Your task to perform on an android device: set the stopwatch Image 0: 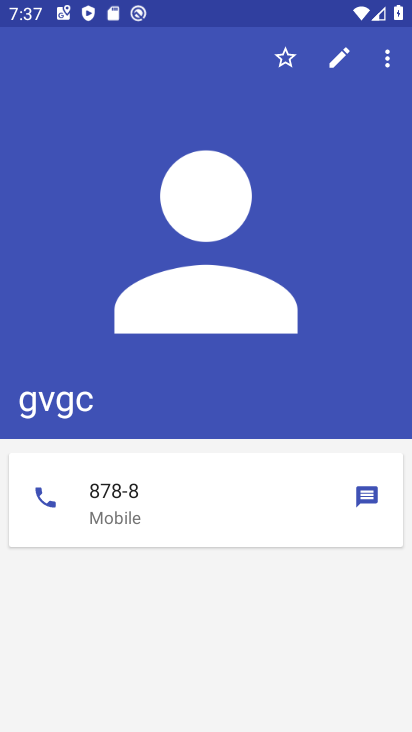
Step 0: press home button
Your task to perform on an android device: set the stopwatch Image 1: 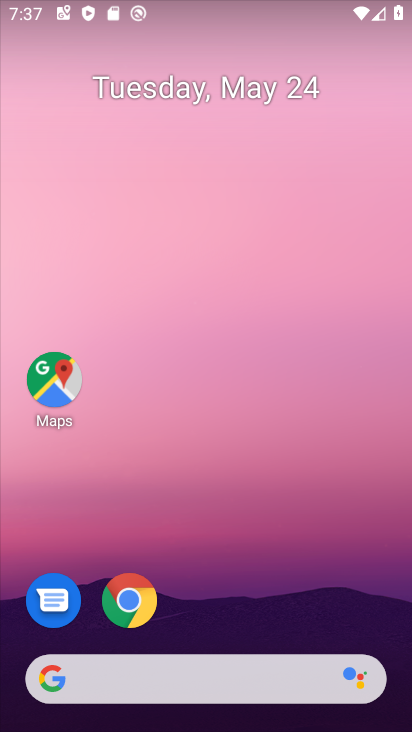
Step 1: drag from (268, 607) to (338, 29)
Your task to perform on an android device: set the stopwatch Image 2: 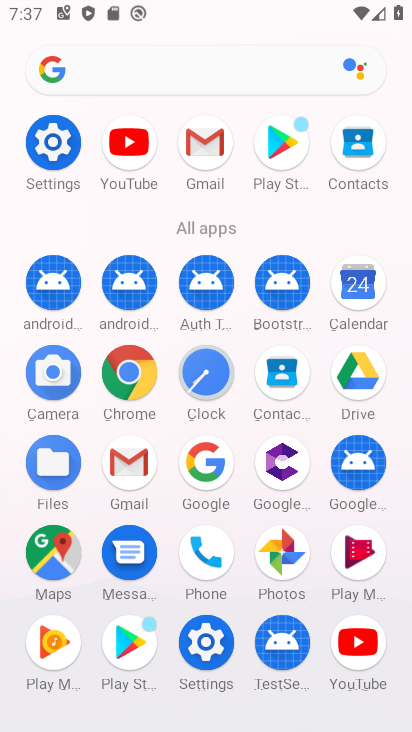
Step 2: click (204, 377)
Your task to perform on an android device: set the stopwatch Image 3: 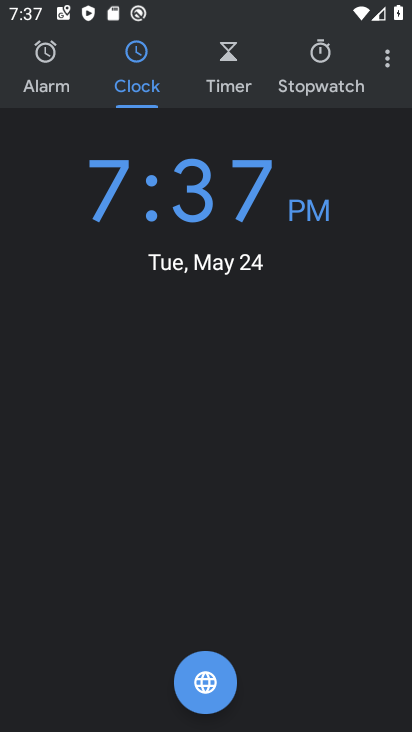
Step 3: click (336, 57)
Your task to perform on an android device: set the stopwatch Image 4: 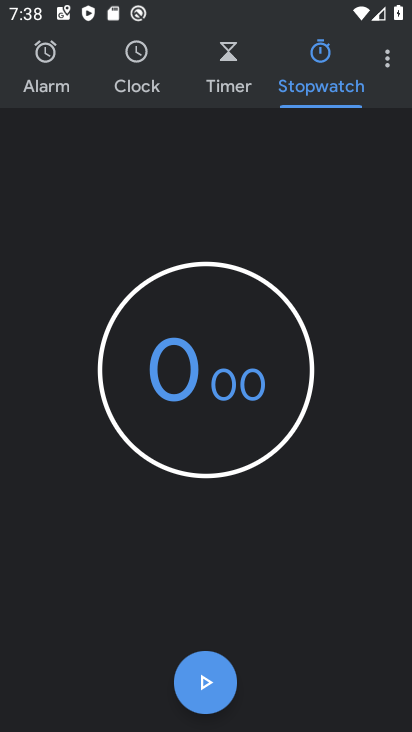
Step 4: click (216, 363)
Your task to perform on an android device: set the stopwatch Image 5: 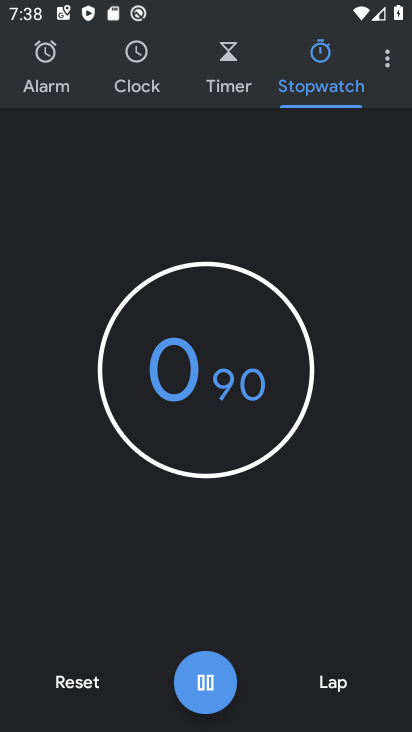
Step 5: click (216, 363)
Your task to perform on an android device: set the stopwatch Image 6: 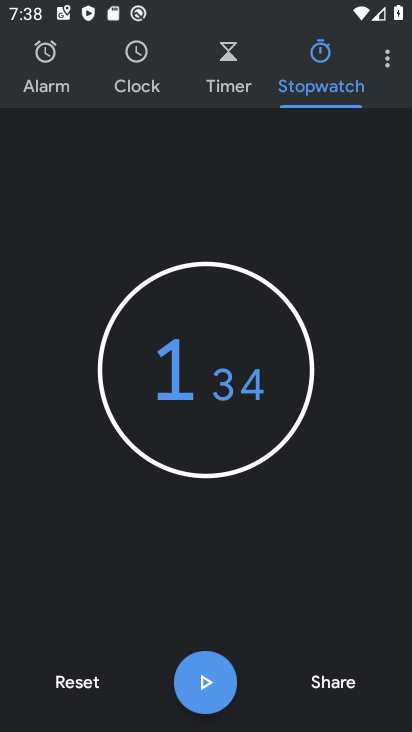
Step 6: task complete